Your task to perform on an android device: turn on the 12-hour format for clock Image 0: 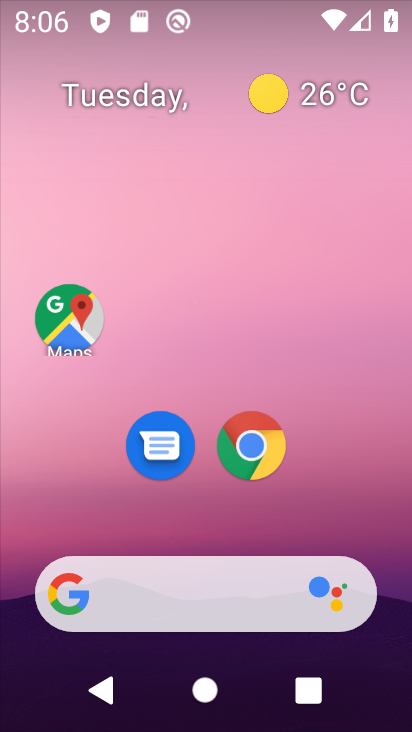
Step 0: drag from (322, 503) to (264, 148)
Your task to perform on an android device: turn on the 12-hour format for clock Image 1: 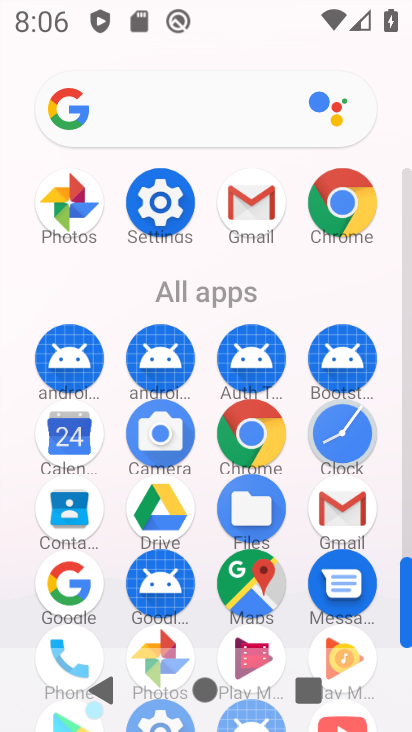
Step 1: click (341, 431)
Your task to perform on an android device: turn on the 12-hour format for clock Image 2: 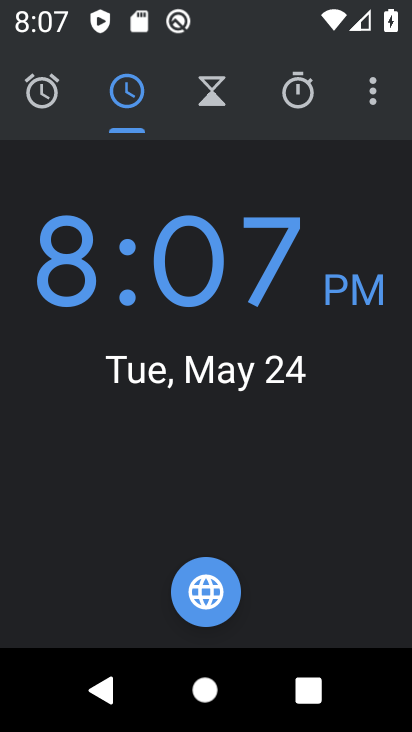
Step 2: click (370, 97)
Your task to perform on an android device: turn on the 12-hour format for clock Image 3: 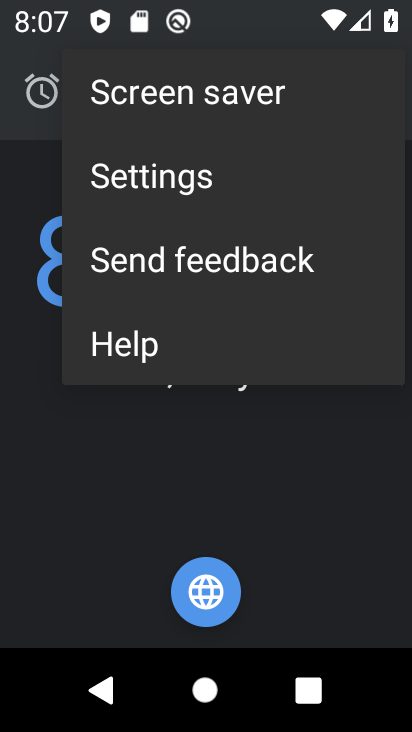
Step 3: click (187, 185)
Your task to perform on an android device: turn on the 12-hour format for clock Image 4: 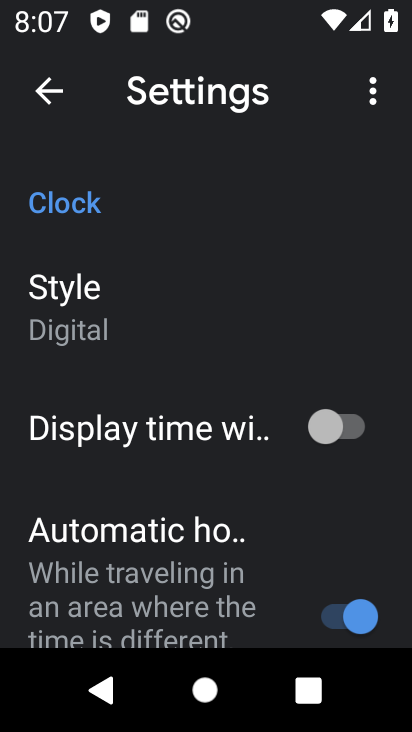
Step 4: drag from (159, 471) to (248, 325)
Your task to perform on an android device: turn on the 12-hour format for clock Image 5: 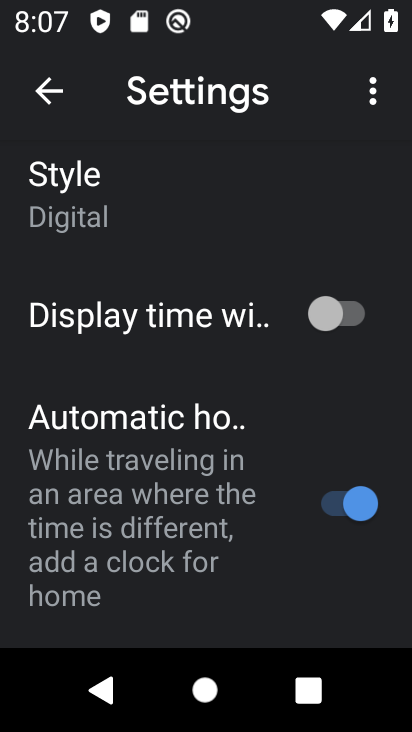
Step 5: drag from (186, 616) to (264, 415)
Your task to perform on an android device: turn on the 12-hour format for clock Image 6: 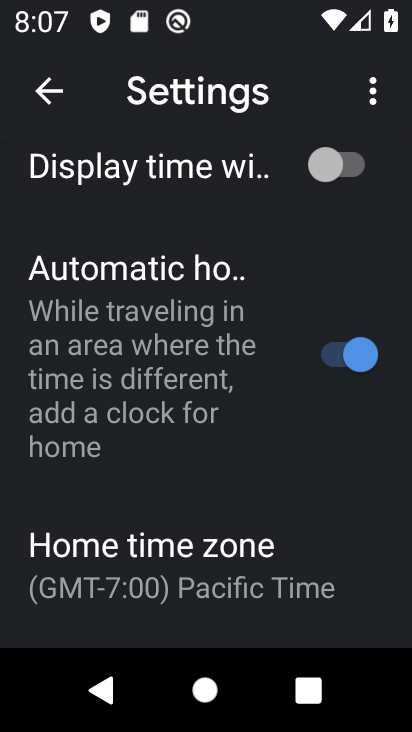
Step 6: drag from (174, 490) to (257, 344)
Your task to perform on an android device: turn on the 12-hour format for clock Image 7: 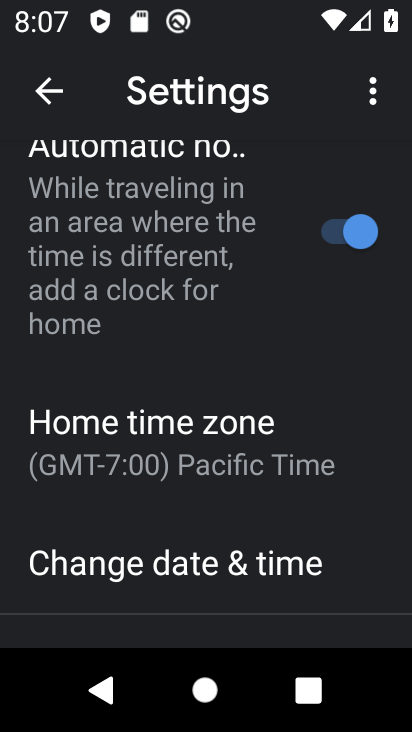
Step 7: drag from (192, 522) to (280, 386)
Your task to perform on an android device: turn on the 12-hour format for clock Image 8: 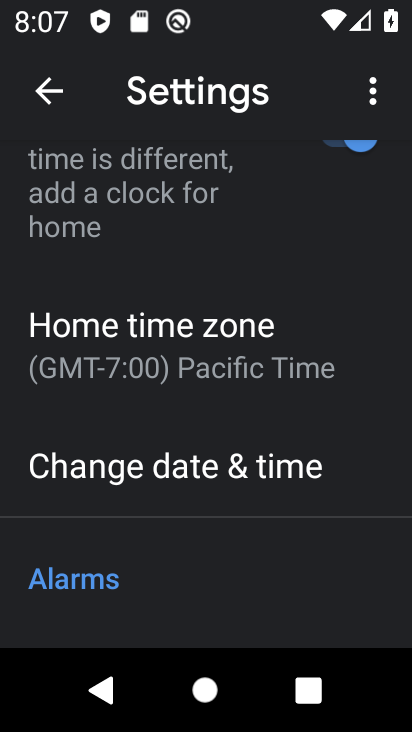
Step 8: click (228, 466)
Your task to perform on an android device: turn on the 12-hour format for clock Image 9: 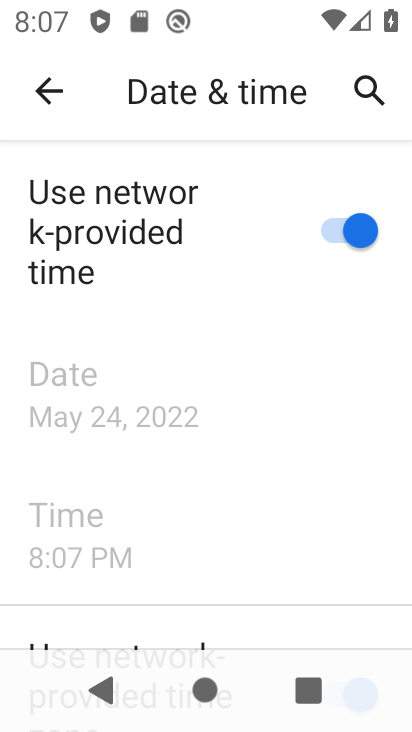
Step 9: task complete